Your task to perform on an android device: create a new album in the google photos Image 0: 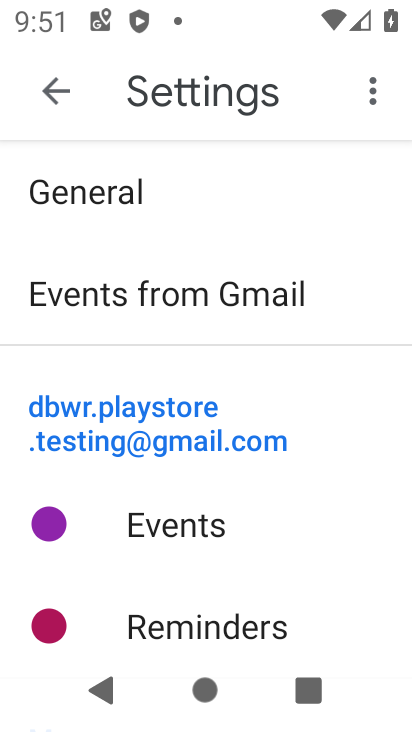
Step 0: press back button
Your task to perform on an android device: create a new album in the google photos Image 1: 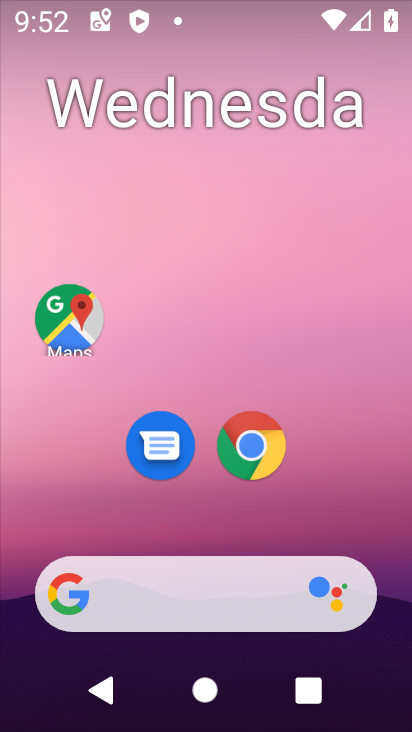
Step 1: drag from (195, 503) to (278, 115)
Your task to perform on an android device: create a new album in the google photos Image 2: 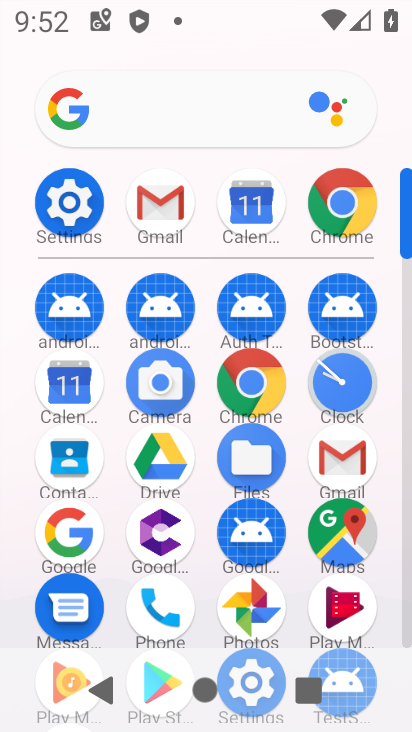
Step 2: click (257, 612)
Your task to perform on an android device: create a new album in the google photos Image 3: 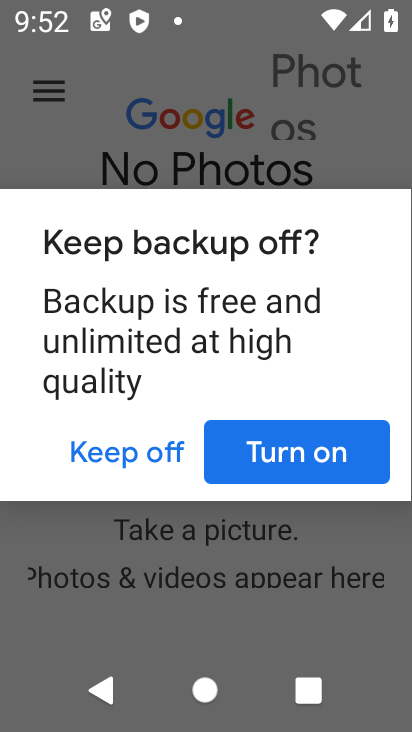
Step 3: click (124, 436)
Your task to perform on an android device: create a new album in the google photos Image 4: 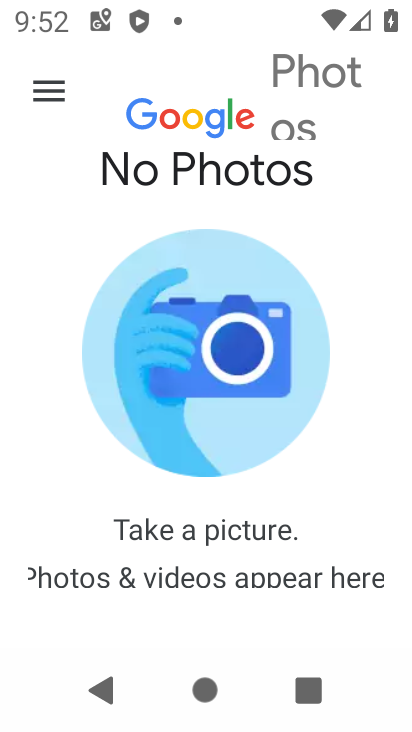
Step 4: click (62, 86)
Your task to perform on an android device: create a new album in the google photos Image 5: 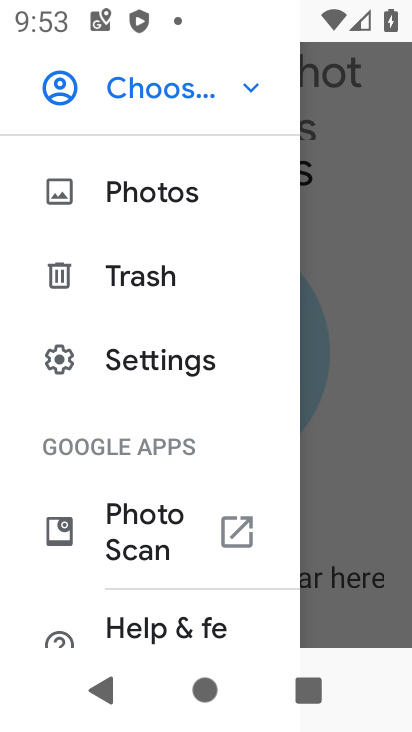
Step 5: click (331, 274)
Your task to perform on an android device: create a new album in the google photos Image 6: 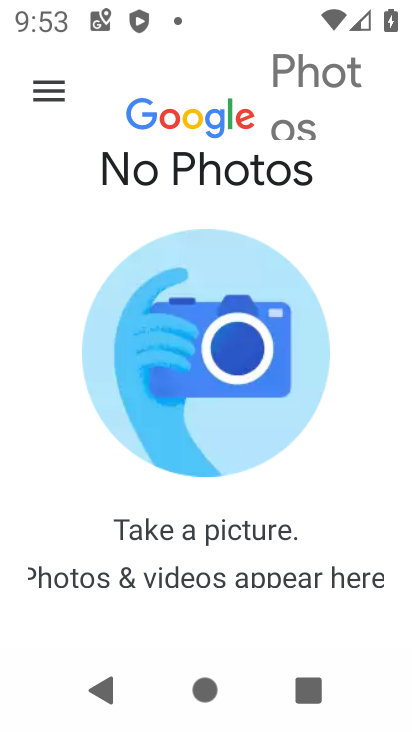
Step 6: task complete